Your task to perform on an android device: Search for sushi restaurants on Maps Image 0: 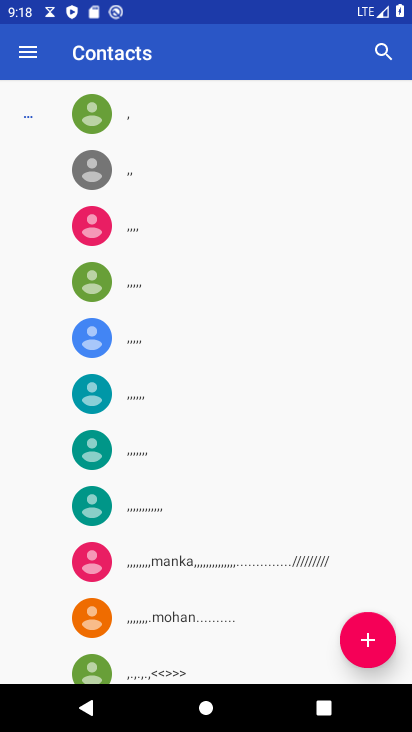
Step 0: press home button
Your task to perform on an android device: Search for sushi restaurants on Maps Image 1: 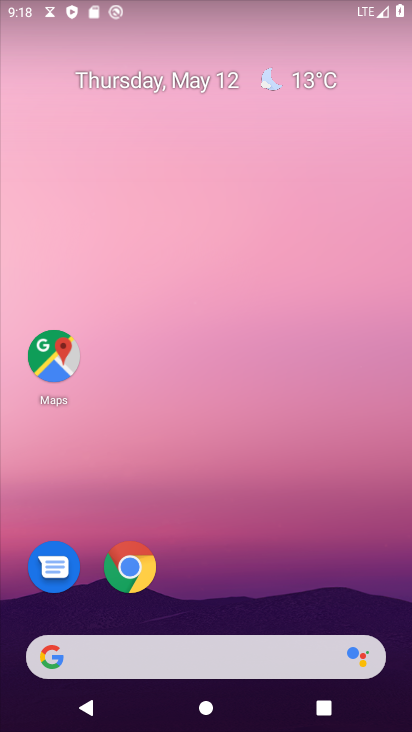
Step 1: click (70, 327)
Your task to perform on an android device: Search for sushi restaurants on Maps Image 2: 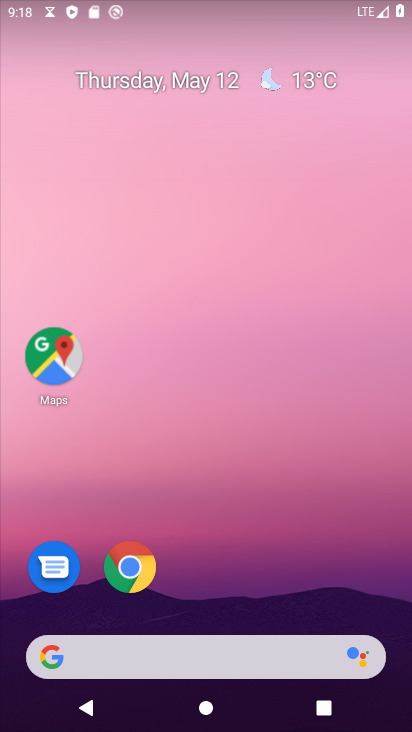
Step 2: click (57, 350)
Your task to perform on an android device: Search for sushi restaurants on Maps Image 3: 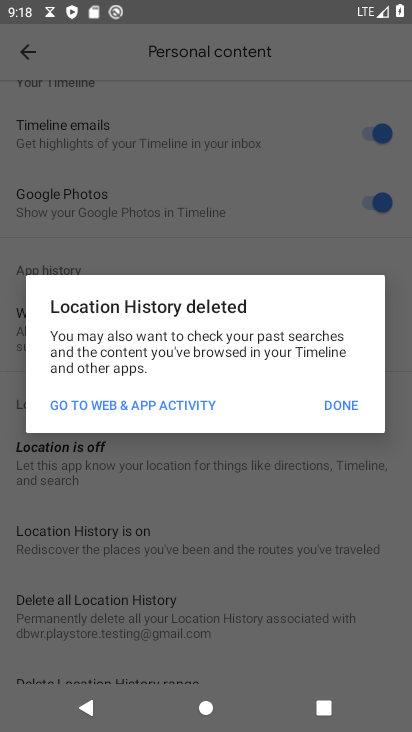
Step 3: click (340, 413)
Your task to perform on an android device: Search for sushi restaurants on Maps Image 4: 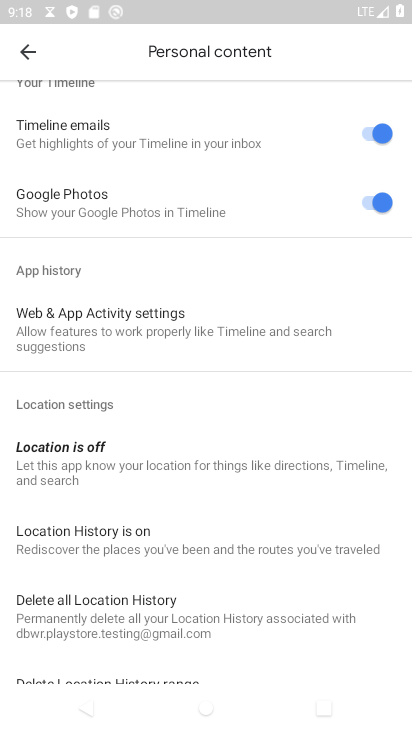
Step 4: click (34, 52)
Your task to perform on an android device: Search for sushi restaurants on Maps Image 5: 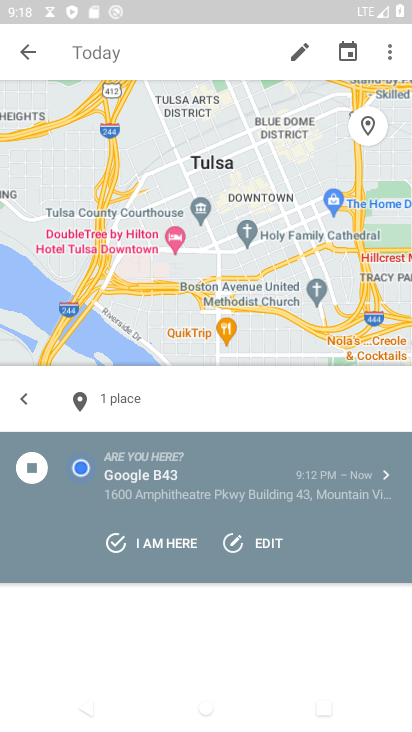
Step 5: click (13, 45)
Your task to perform on an android device: Search for sushi restaurants on Maps Image 6: 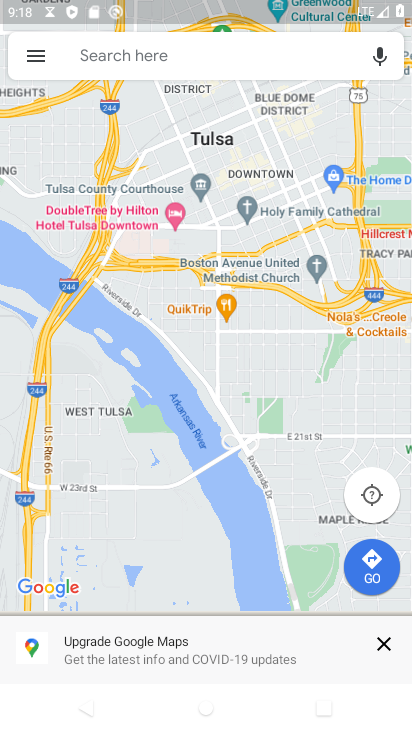
Step 6: click (128, 62)
Your task to perform on an android device: Search for sushi restaurants on Maps Image 7: 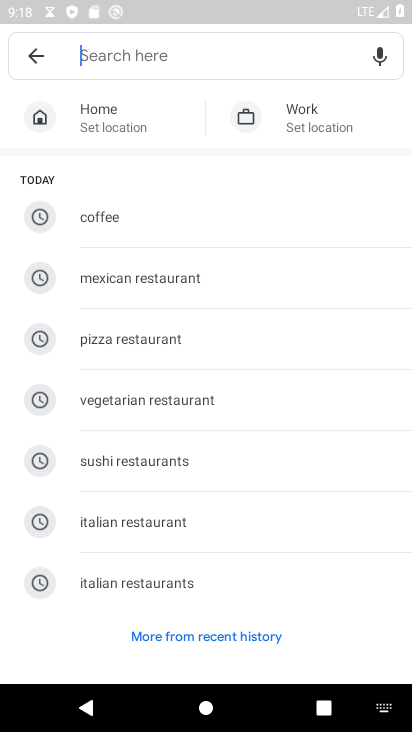
Step 7: click (167, 462)
Your task to perform on an android device: Search for sushi restaurants on Maps Image 8: 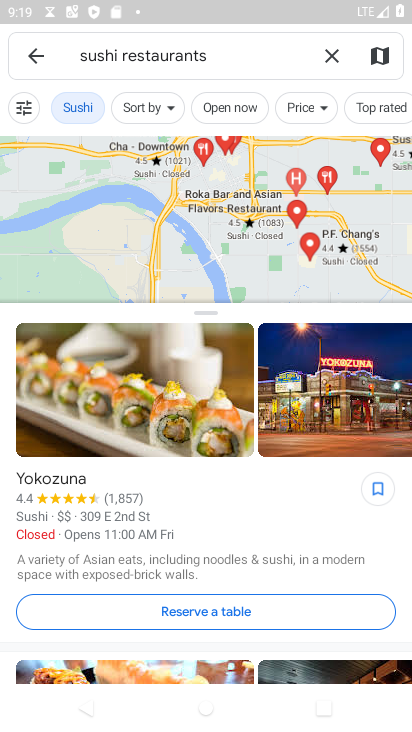
Step 8: task complete